Your task to perform on an android device: Open Google Image 0: 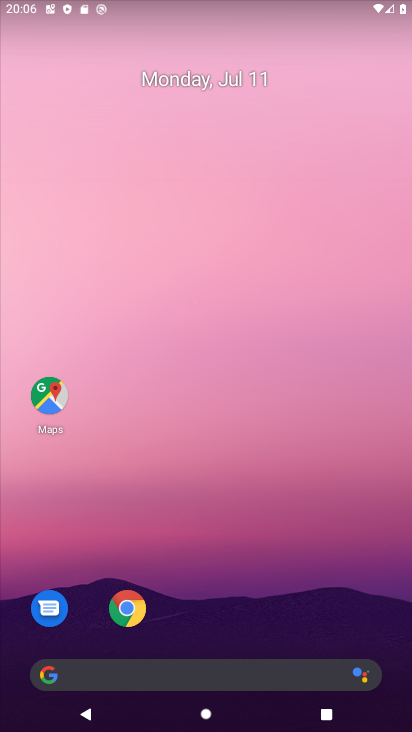
Step 0: click (144, 610)
Your task to perform on an android device: Open Google Image 1: 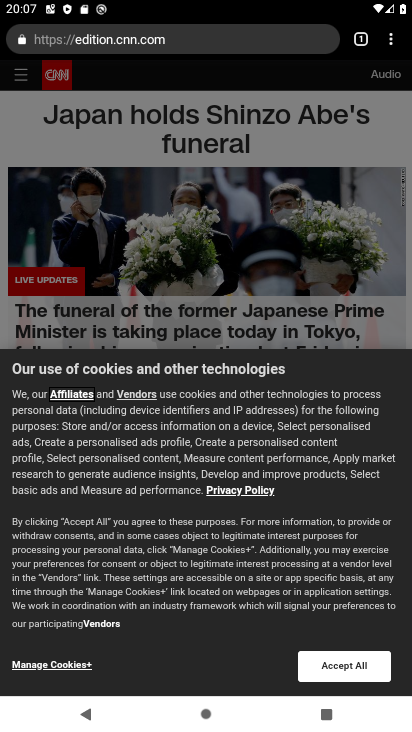
Step 1: click (236, 49)
Your task to perform on an android device: Open Google Image 2: 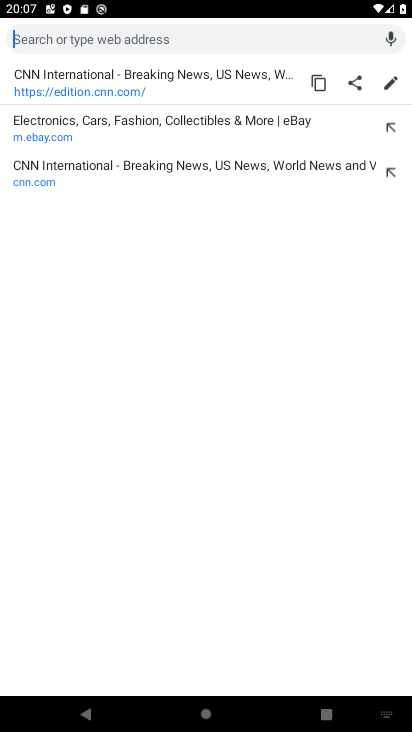
Step 2: type "google.com"
Your task to perform on an android device: Open Google Image 3: 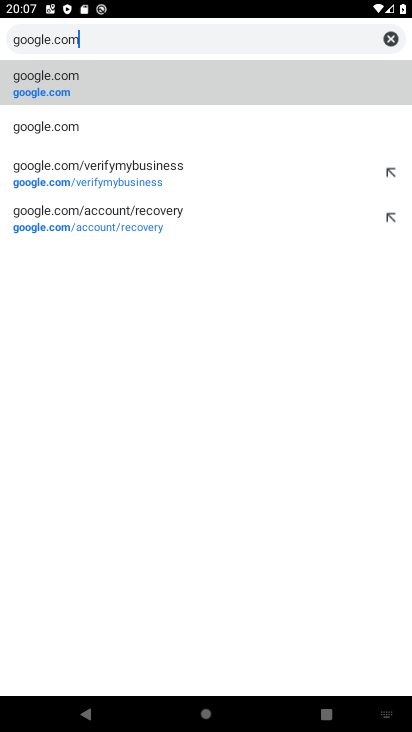
Step 3: click (265, 97)
Your task to perform on an android device: Open Google Image 4: 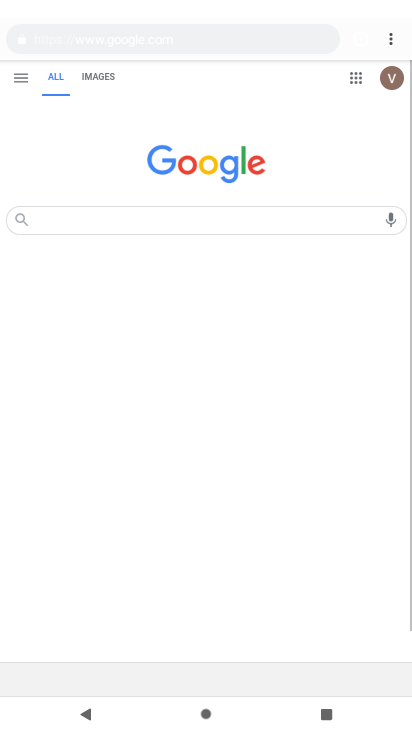
Step 4: task complete